Your task to perform on an android device: install app "Life360: Find Family & Friends" Image 0: 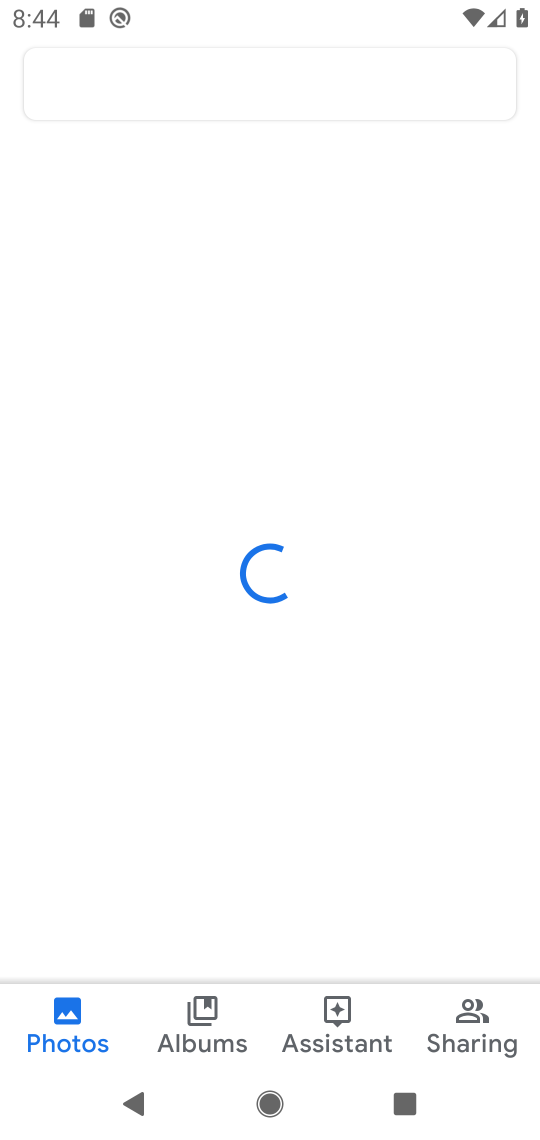
Step 0: press home button
Your task to perform on an android device: install app "Life360: Find Family & Friends" Image 1: 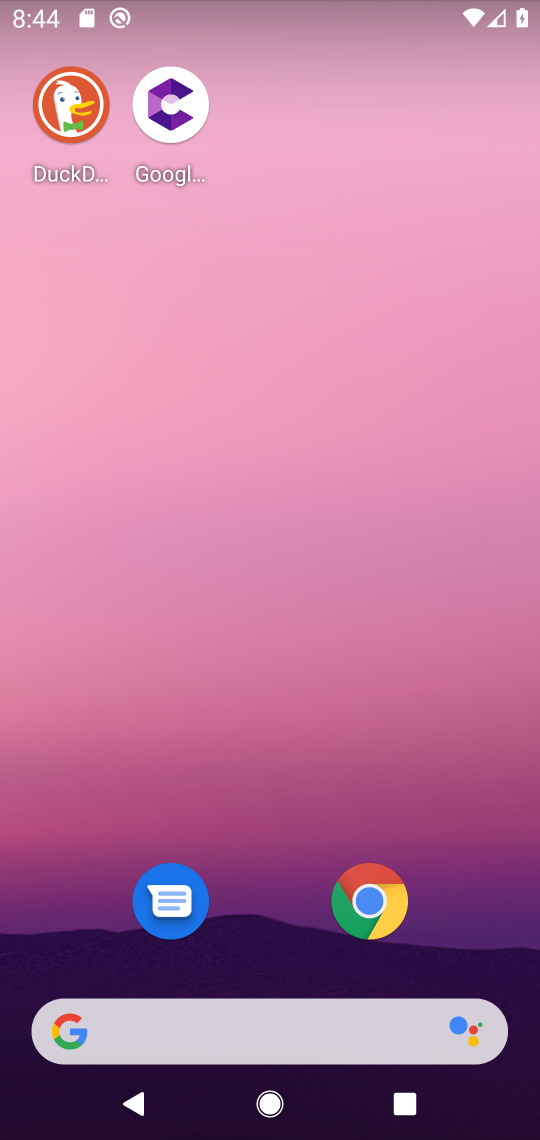
Step 1: drag from (252, 877) to (232, 167)
Your task to perform on an android device: install app "Life360: Find Family & Friends" Image 2: 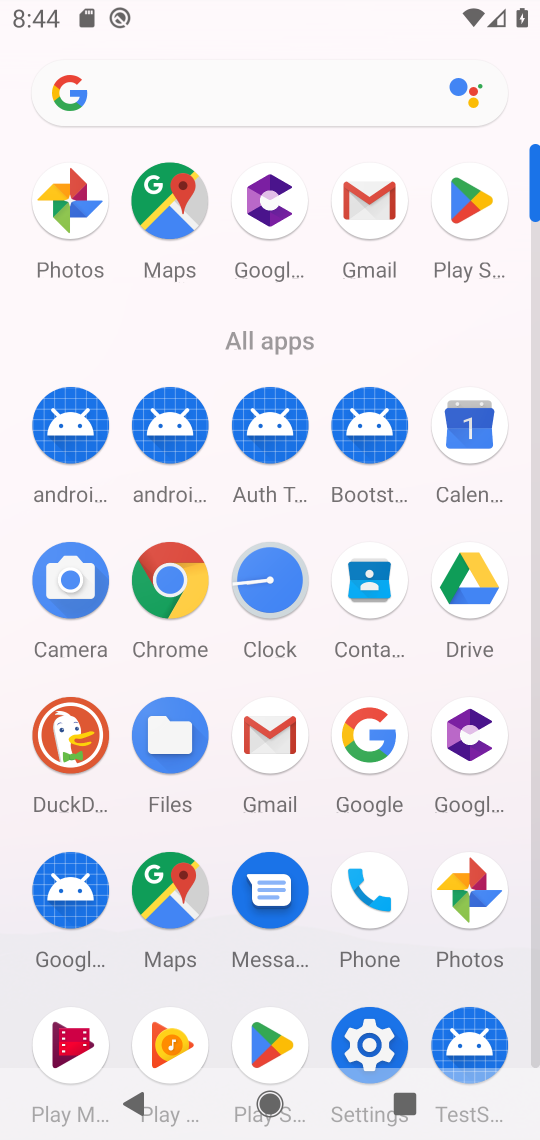
Step 2: click (482, 190)
Your task to perform on an android device: install app "Life360: Find Family & Friends" Image 3: 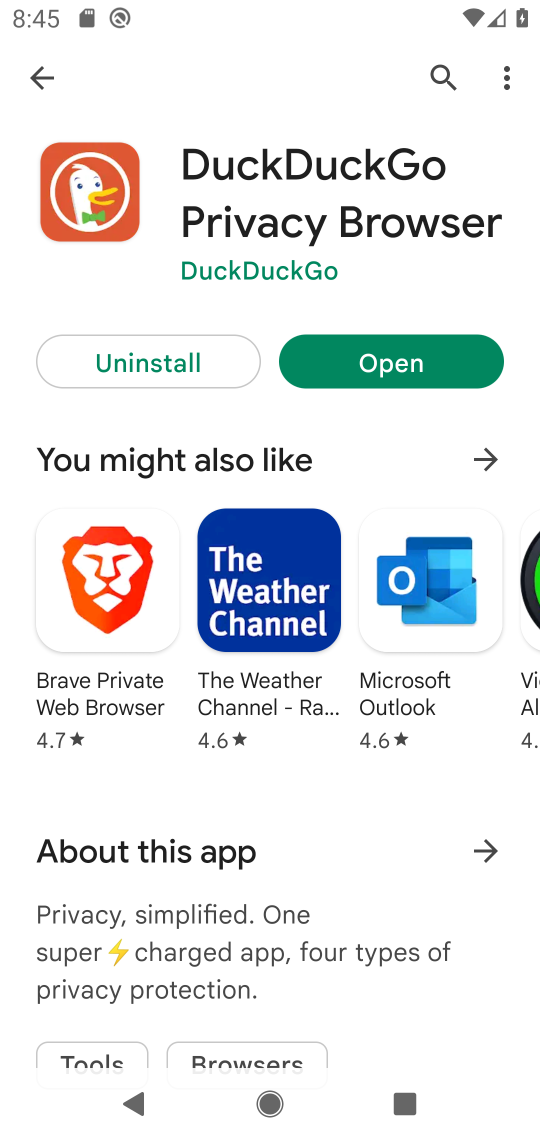
Step 3: click (435, 77)
Your task to perform on an android device: install app "Life360: Find Family & Friends" Image 4: 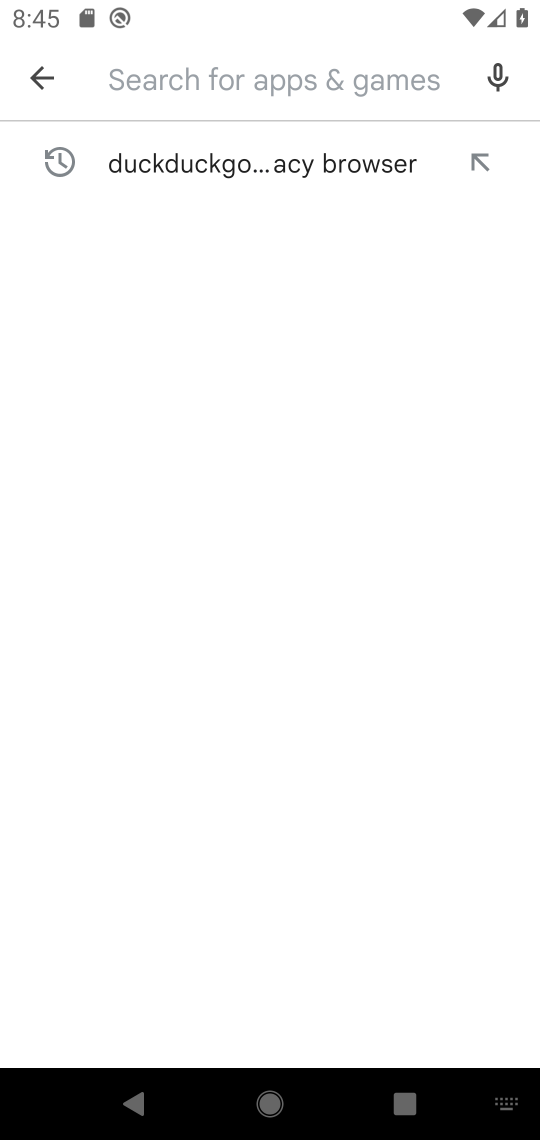
Step 4: type "life360: find family & friends"
Your task to perform on an android device: install app "Life360: Find Family & Friends" Image 5: 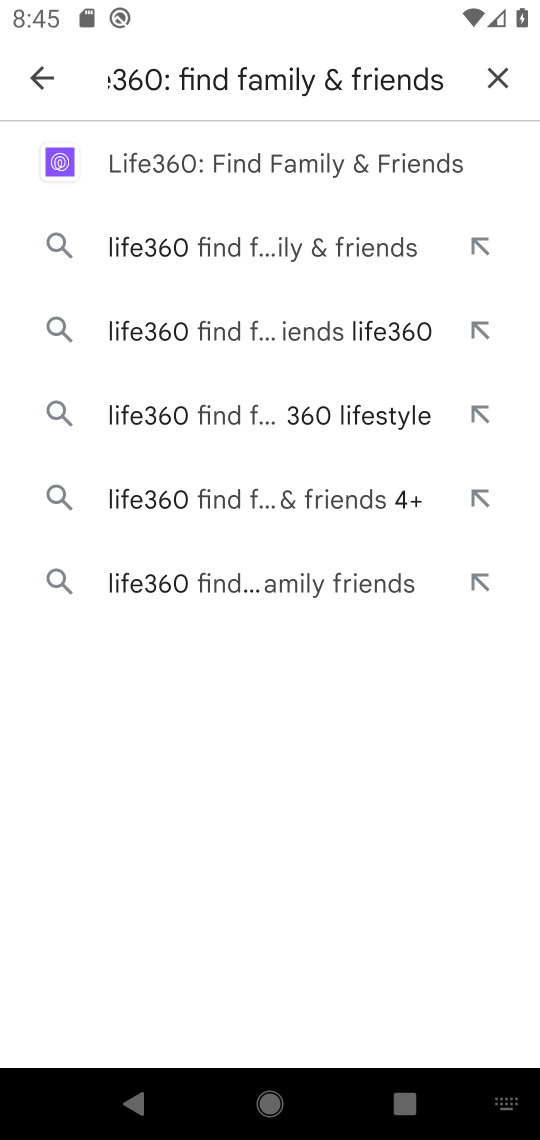
Step 5: click (196, 143)
Your task to perform on an android device: install app "Life360: Find Family & Friends" Image 6: 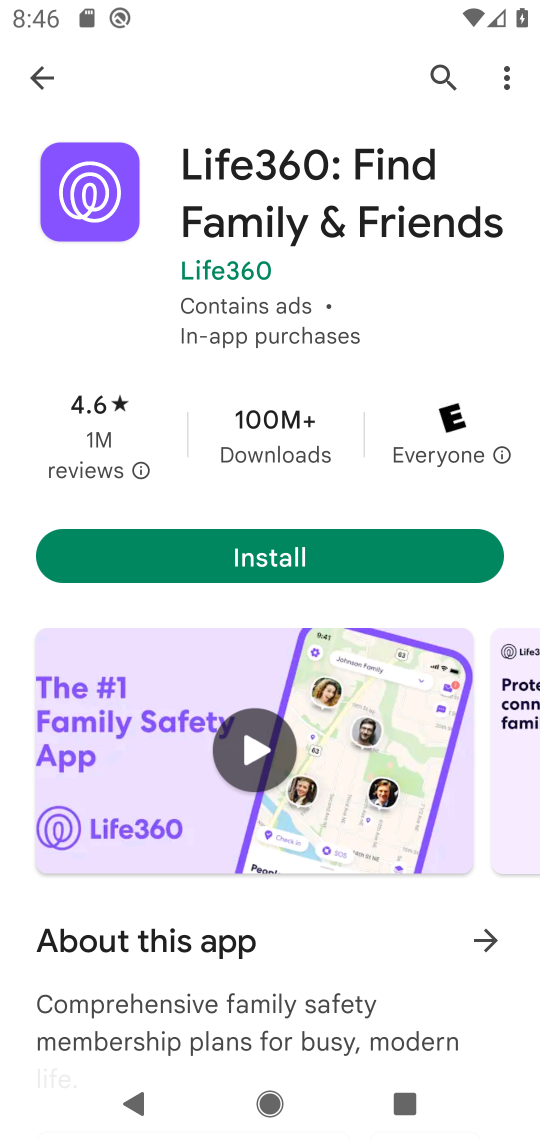
Step 6: click (119, 540)
Your task to perform on an android device: install app "Life360: Find Family & Friends" Image 7: 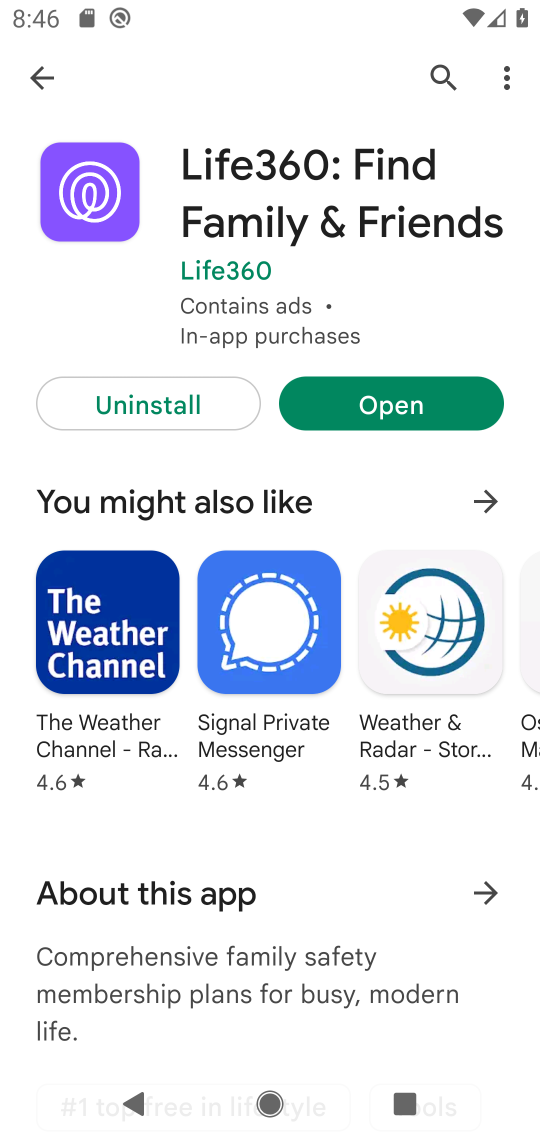
Step 7: task complete